Your task to perform on an android device: turn off javascript in the chrome app Image 0: 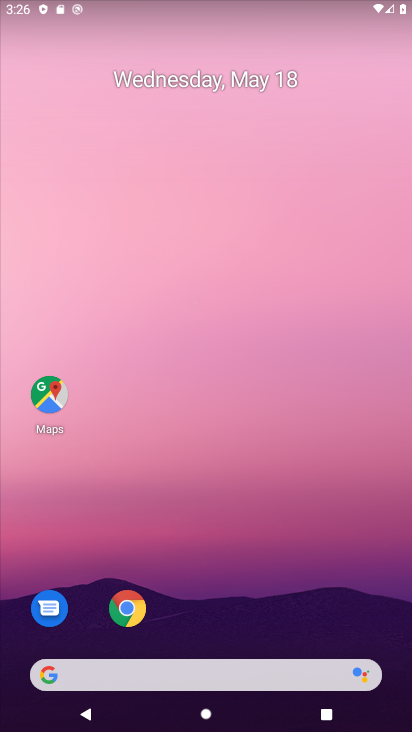
Step 0: click (131, 615)
Your task to perform on an android device: turn off javascript in the chrome app Image 1: 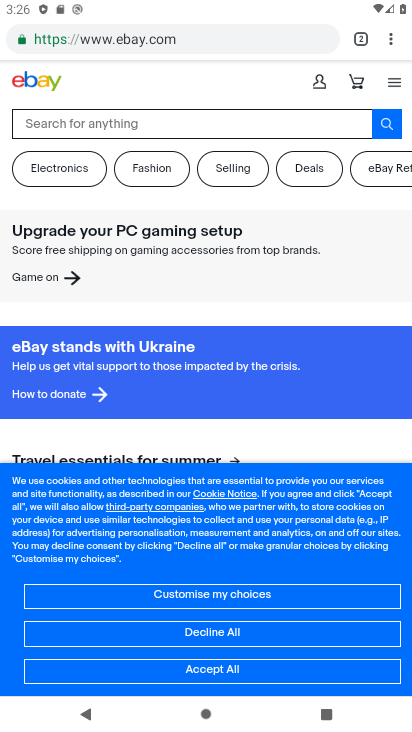
Step 1: click (402, 39)
Your task to perform on an android device: turn off javascript in the chrome app Image 2: 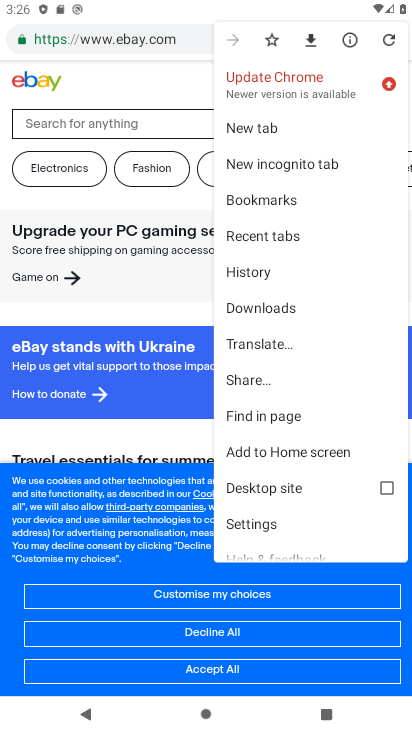
Step 2: click (256, 525)
Your task to perform on an android device: turn off javascript in the chrome app Image 3: 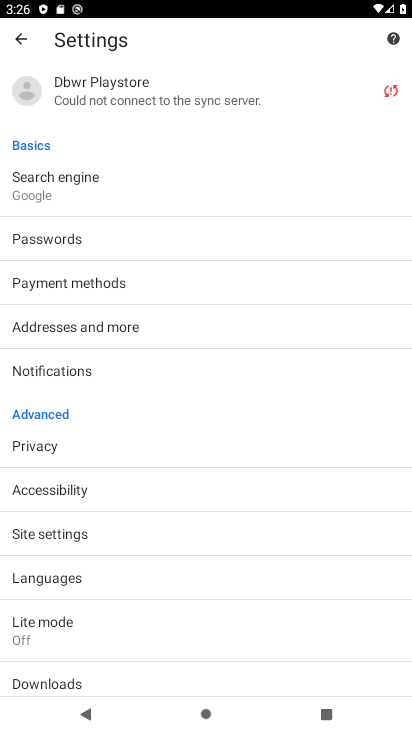
Step 3: click (203, 525)
Your task to perform on an android device: turn off javascript in the chrome app Image 4: 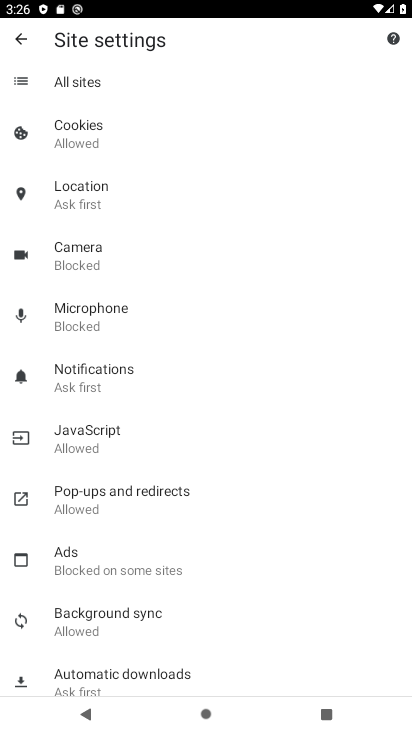
Step 4: click (117, 452)
Your task to perform on an android device: turn off javascript in the chrome app Image 5: 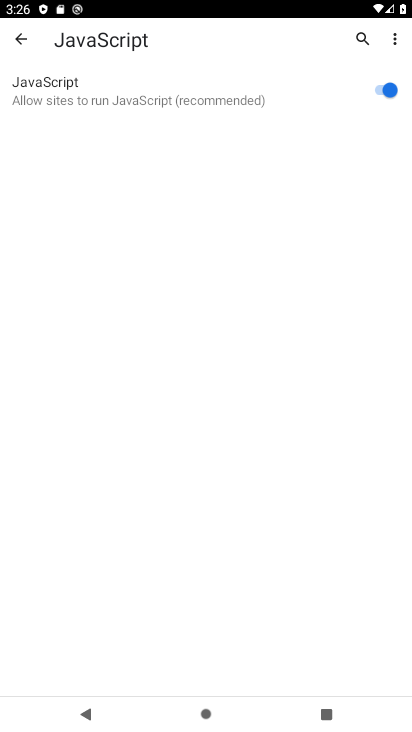
Step 5: task complete